Your task to perform on an android device: Open Yahoo.com Image 0: 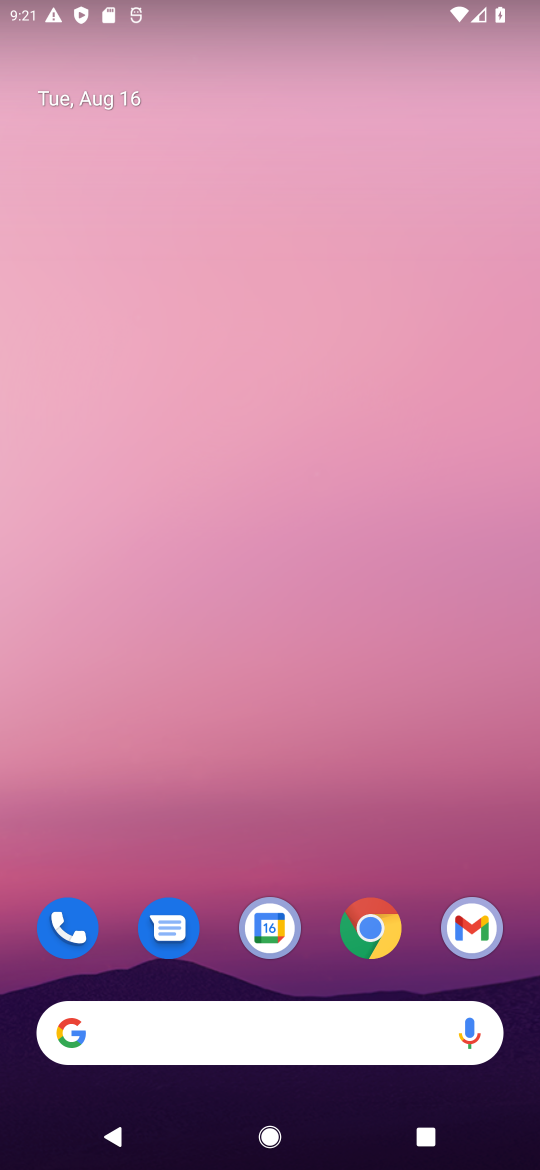
Step 0: press home button
Your task to perform on an android device: Open Yahoo.com Image 1: 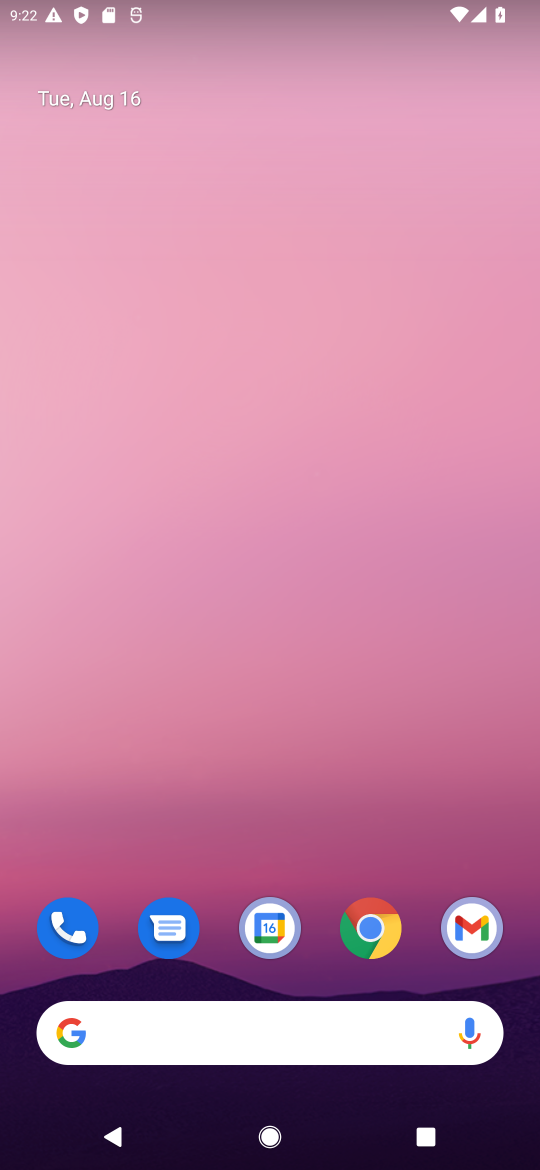
Step 1: click (62, 1038)
Your task to perform on an android device: Open Yahoo.com Image 2: 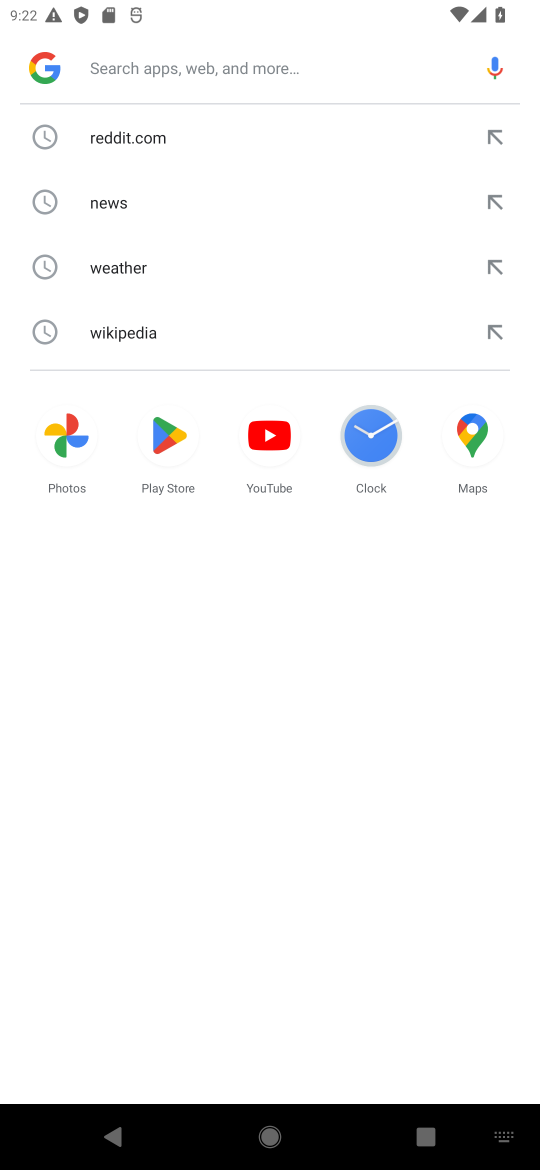
Step 2: type "Yahoo.com"
Your task to perform on an android device: Open Yahoo.com Image 3: 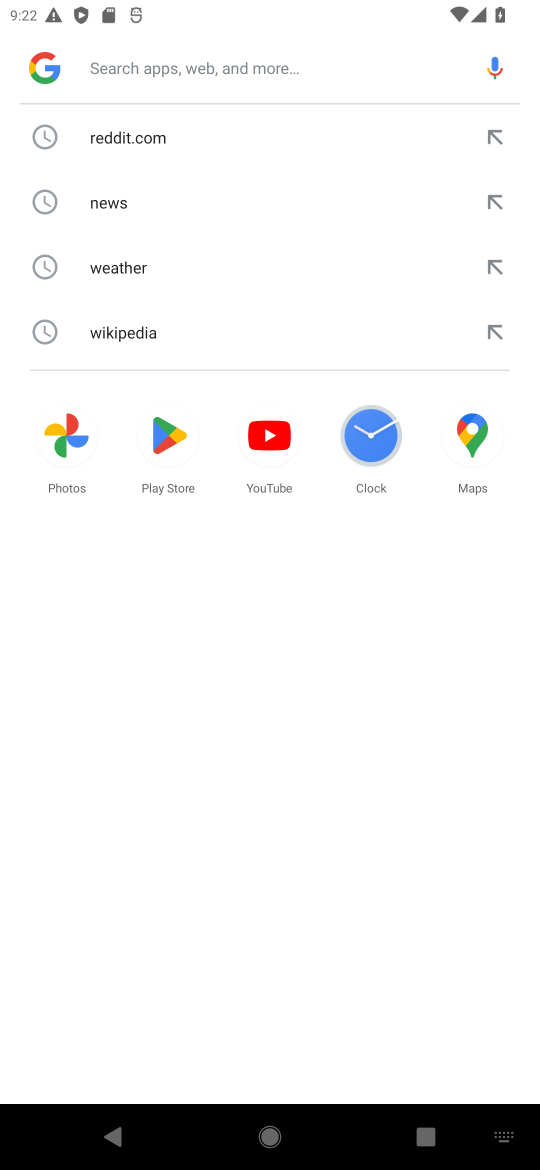
Step 3: click (213, 65)
Your task to perform on an android device: Open Yahoo.com Image 4: 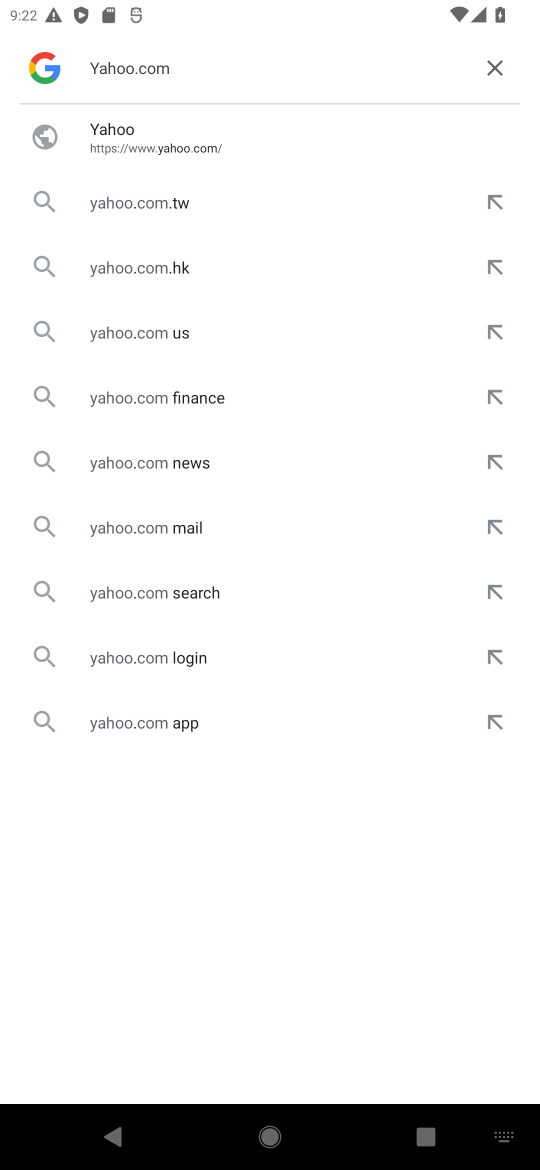
Step 4: press enter
Your task to perform on an android device: Open Yahoo.com Image 5: 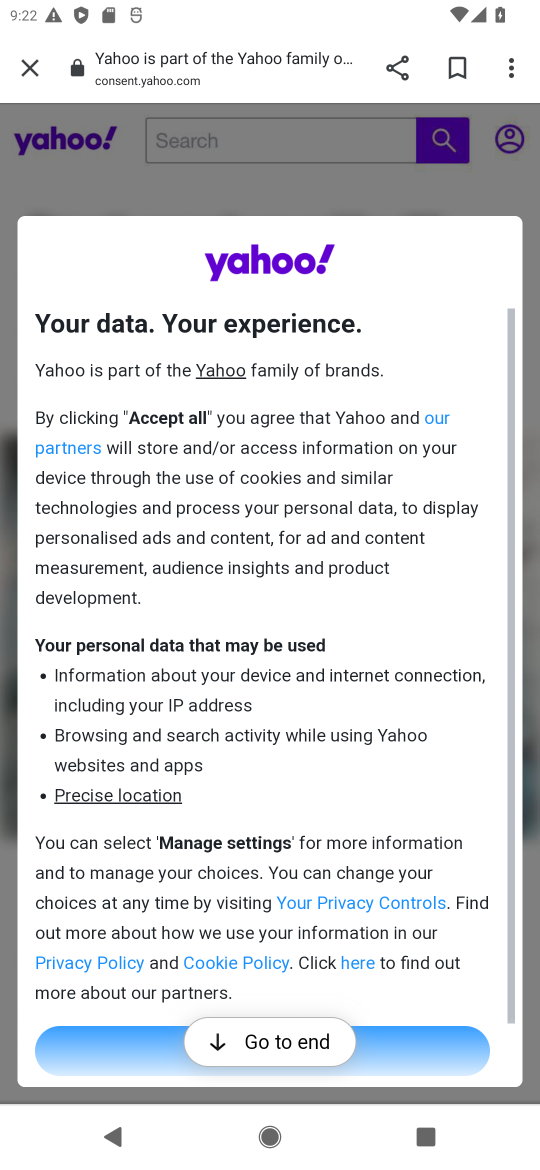
Step 5: click (266, 1041)
Your task to perform on an android device: Open Yahoo.com Image 6: 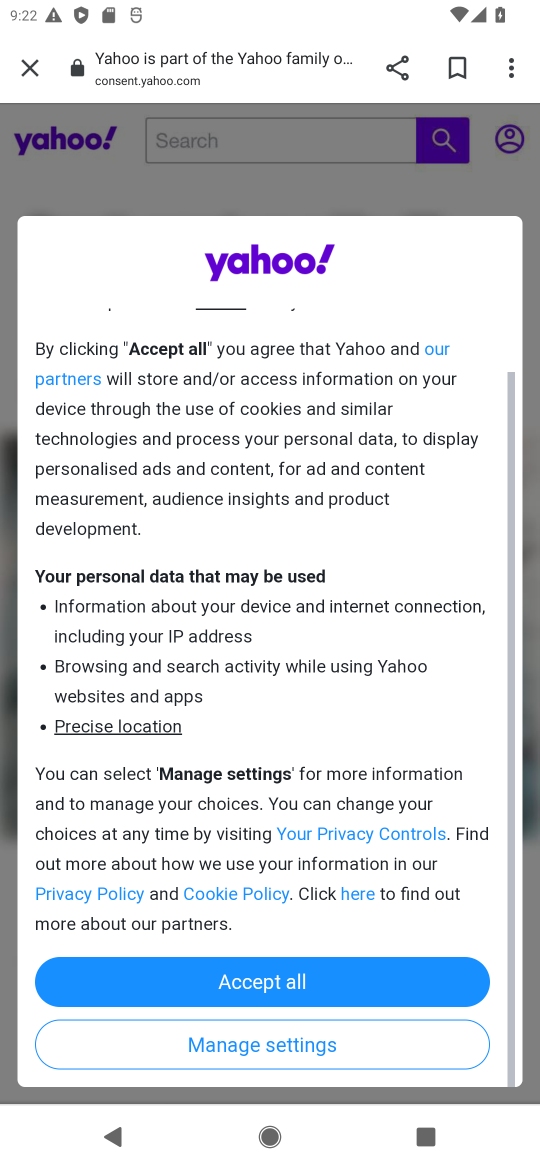
Step 6: click (342, 970)
Your task to perform on an android device: Open Yahoo.com Image 7: 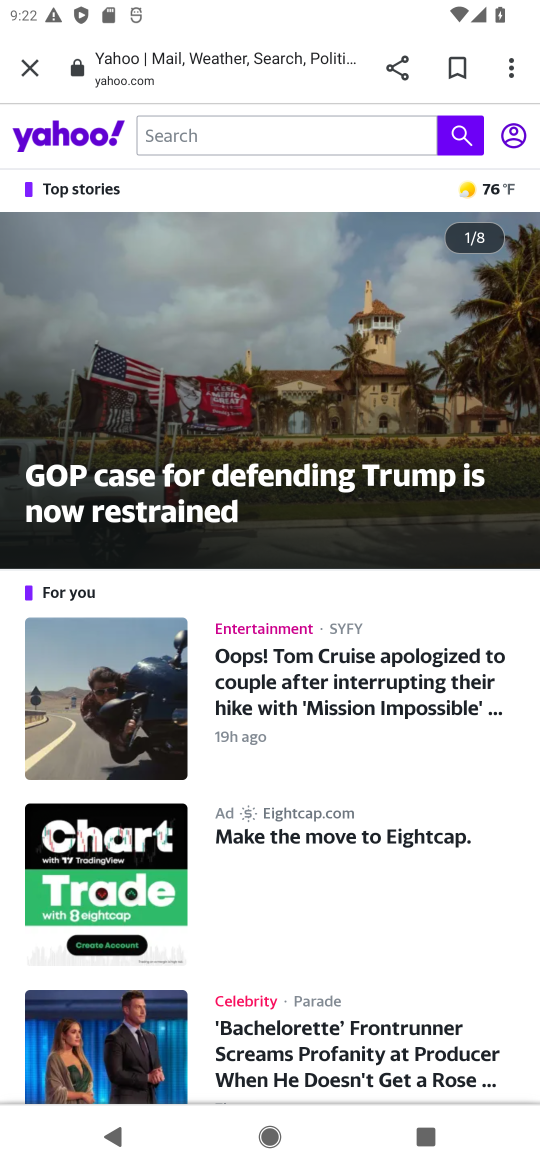
Step 7: task complete